Your task to perform on an android device: Search for Italian restaurants on Maps Image 0: 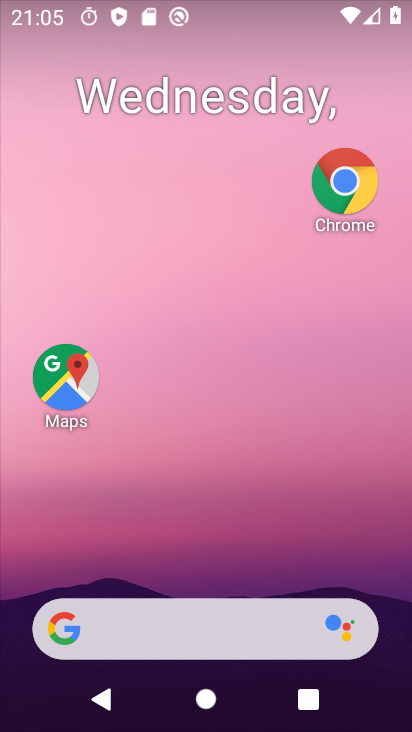
Step 0: drag from (208, 652) to (271, 162)
Your task to perform on an android device: Search for Italian restaurants on Maps Image 1: 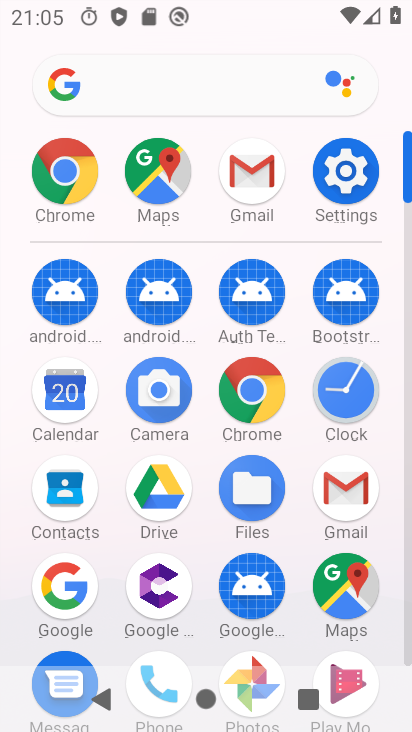
Step 1: click (154, 185)
Your task to perform on an android device: Search for Italian restaurants on Maps Image 2: 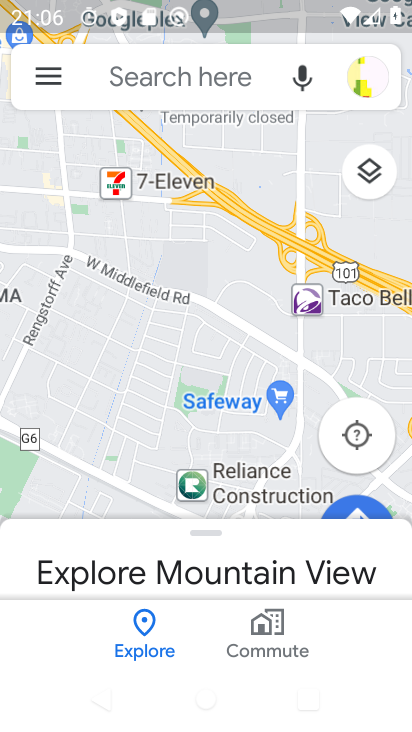
Step 2: click (172, 80)
Your task to perform on an android device: Search for Italian restaurants on Maps Image 3: 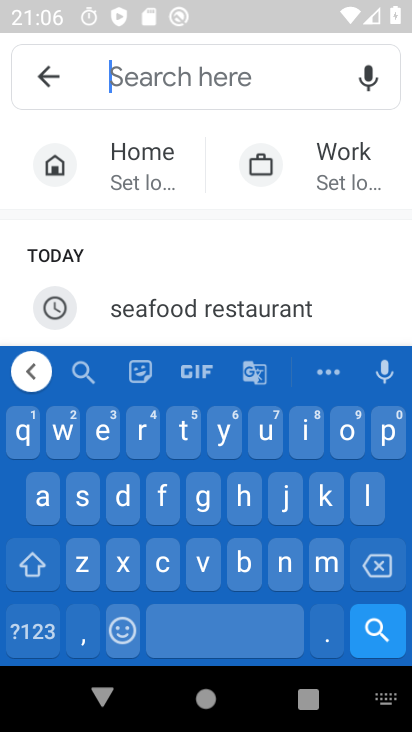
Step 3: click (301, 441)
Your task to perform on an android device: Search for Italian restaurants on Maps Image 4: 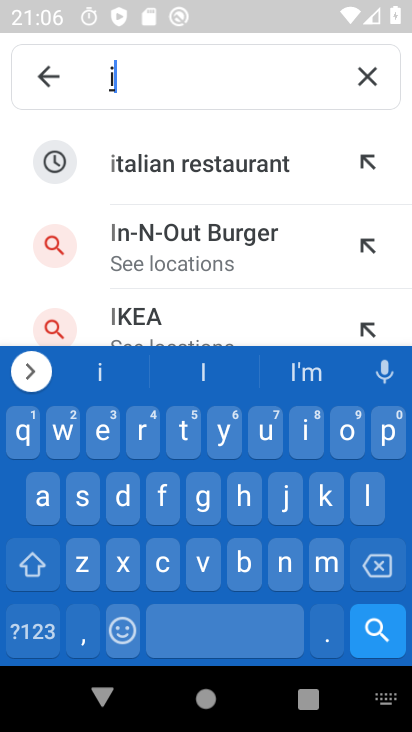
Step 4: click (239, 167)
Your task to perform on an android device: Search for Italian restaurants on Maps Image 5: 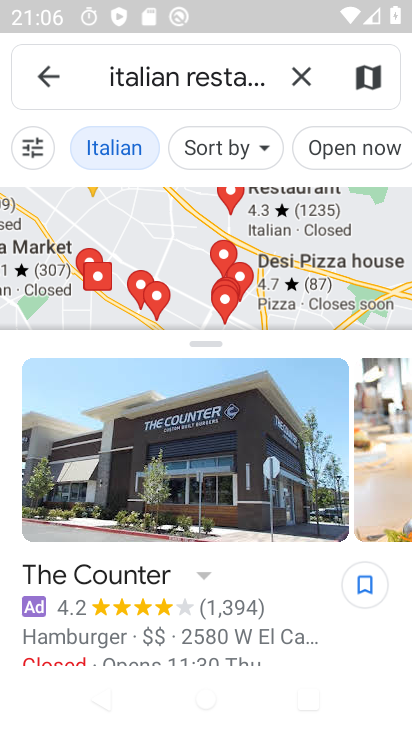
Step 5: task complete